Your task to perform on an android device: turn off notifications settings in the gmail app Image 0: 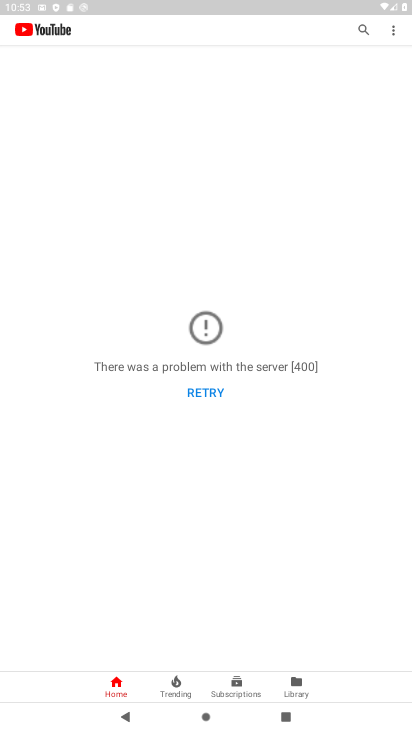
Step 0: press home button
Your task to perform on an android device: turn off notifications settings in the gmail app Image 1: 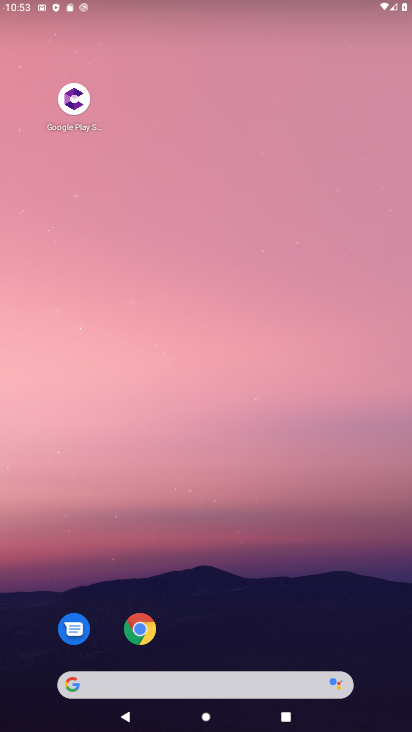
Step 1: drag from (250, 607) to (243, 110)
Your task to perform on an android device: turn off notifications settings in the gmail app Image 2: 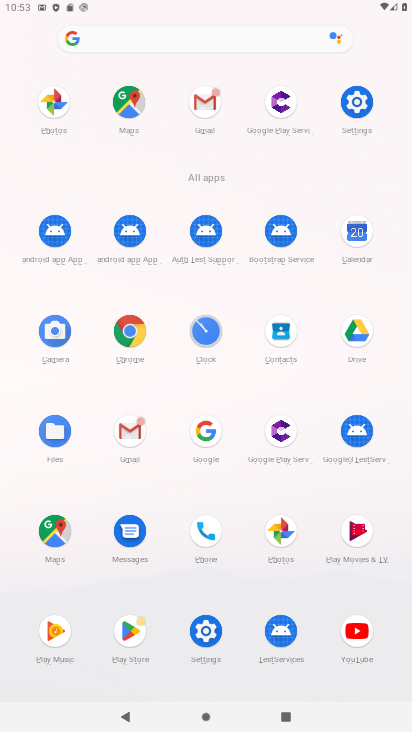
Step 2: click (222, 110)
Your task to perform on an android device: turn off notifications settings in the gmail app Image 3: 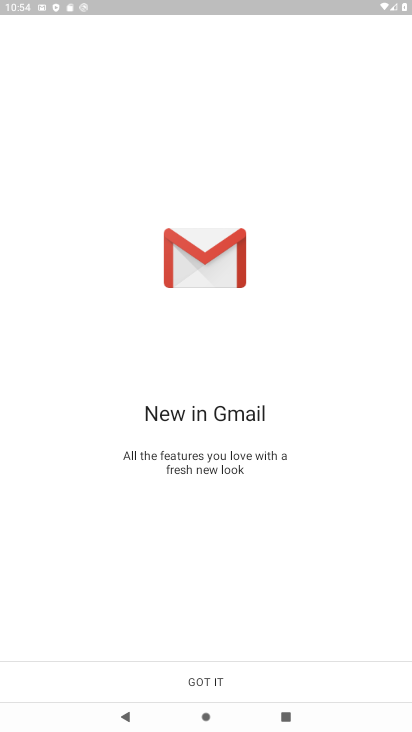
Step 3: click (144, 665)
Your task to perform on an android device: turn off notifications settings in the gmail app Image 4: 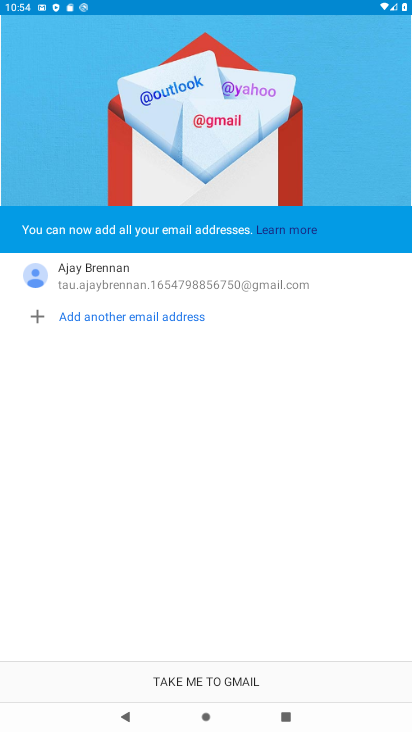
Step 4: click (165, 689)
Your task to perform on an android device: turn off notifications settings in the gmail app Image 5: 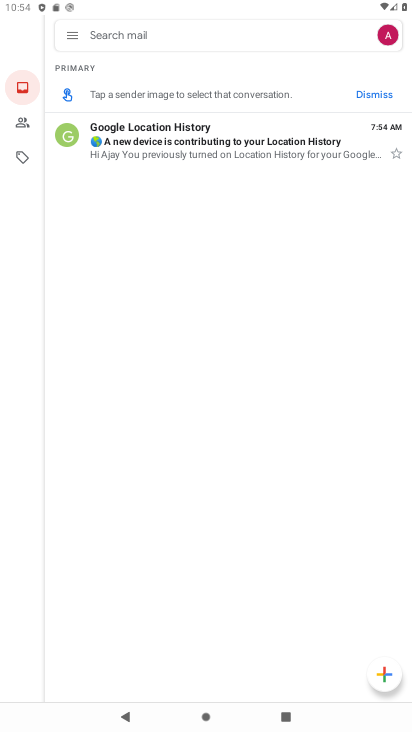
Step 5: click (66, 40)
Your task to perform on an android device: turn off notifications settings in the gmail app Image 6: 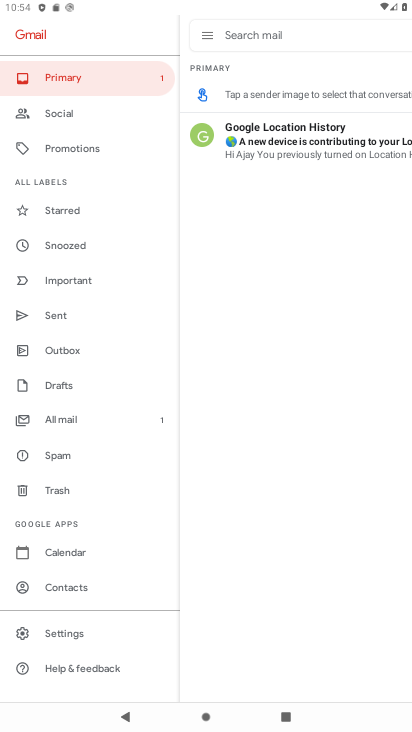
Step 6: click (90, 627)
Your task to perform on an android device: turn off notifications settings in the gmail app Image 7: 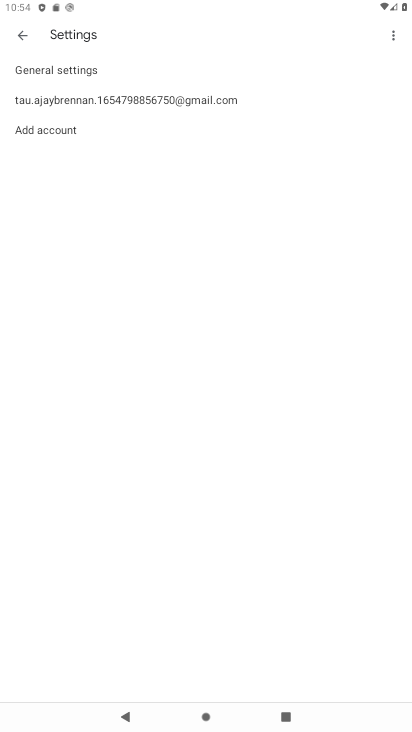
Step 7: click (108, 103)
Your task to perform on an android device: turn off notifications settings in the gmail app Image 8: 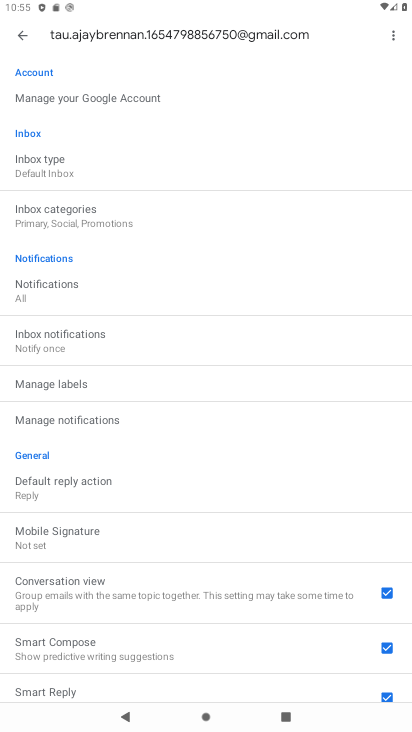
Step 8: click (134, 420)
Your task to perform on an android device: turn off notifications settings in the gmail app Image 9: 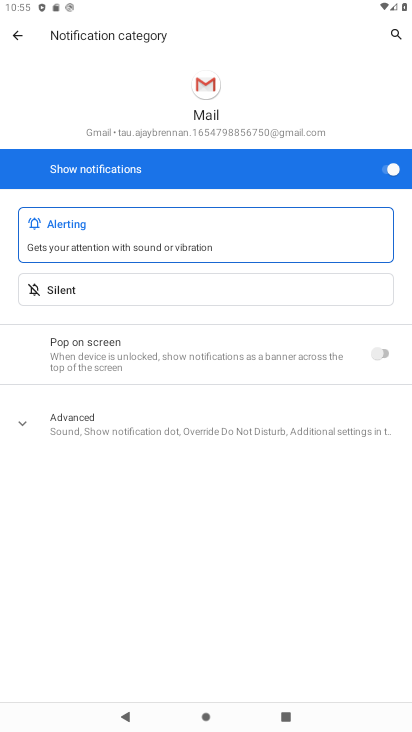
Step 9: click (381, 167)
Your task to perform on an android device: turn off notifications settings in the gmail app Image 10: 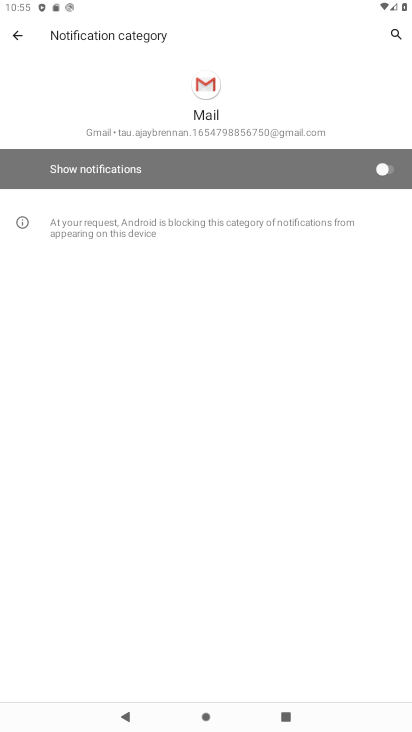
Step 10: task complete